Your task to perform on an android device: turn on data saver in the chrome app Image 0: 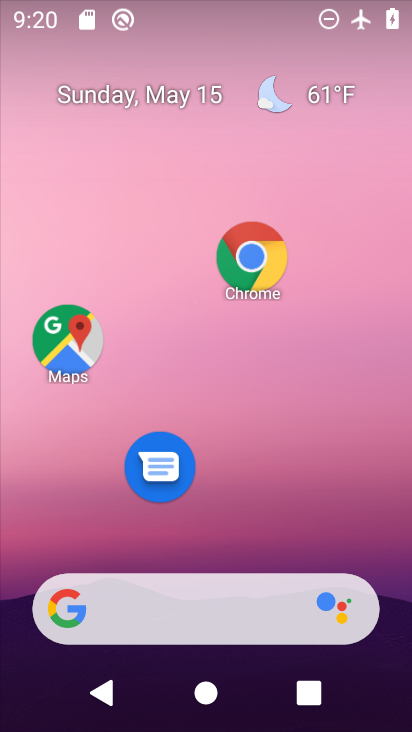
Step 0: click (254, 262)
Your task to perform on an android device: turn on data saver in the chrome app Image 1: 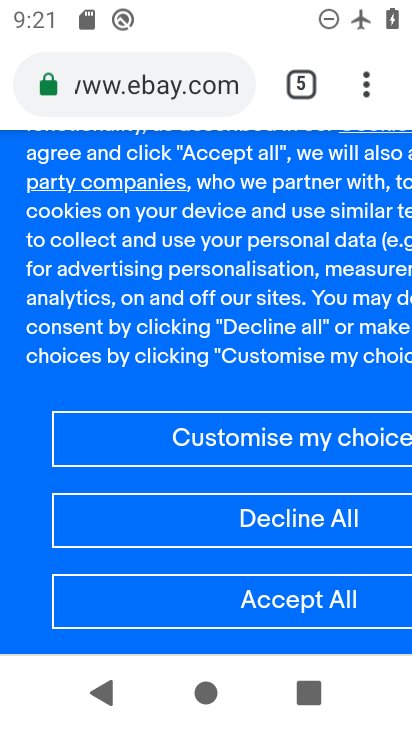
Step 1: click (358, 70)
Your task to perform on an android device: turn on data saver in the chrome app Image 2: 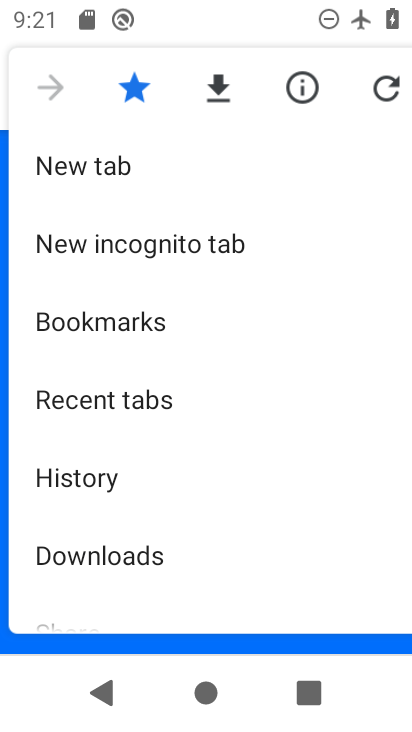
Step 2: drag from (84, 551) to (170, 104)
Your task to perform on an android device: turn on data saver in the chrome app Image 3: 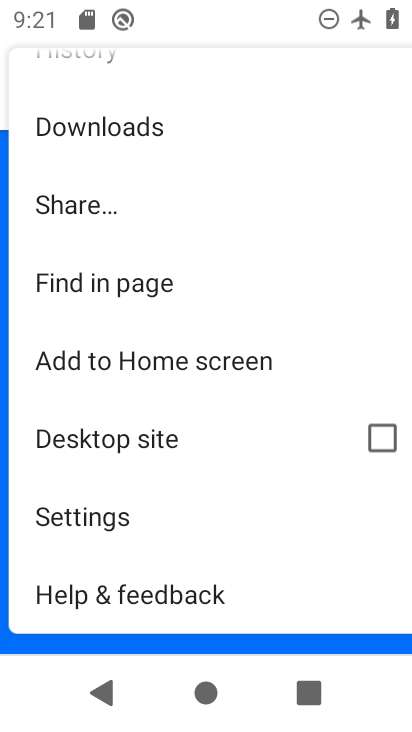
Step 3: drag from (118, 584) to (212, 213)
Your task to perform on an android device: turn on data saver in the chrome app Image 4: 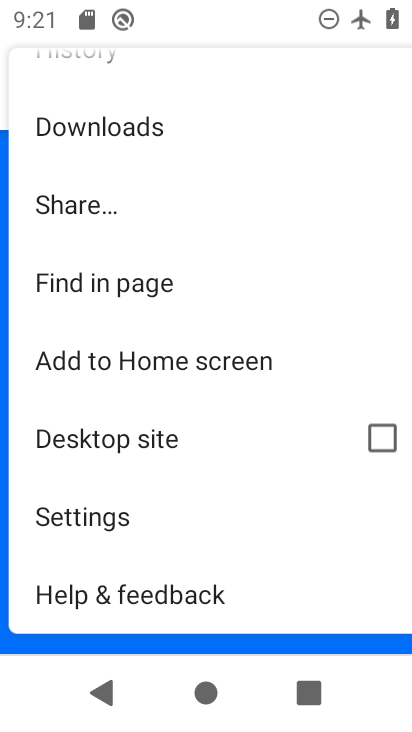
Step 4: click (161, 525)
Your task to perform on an android device: turn on data saver in the chrome app Image 5: 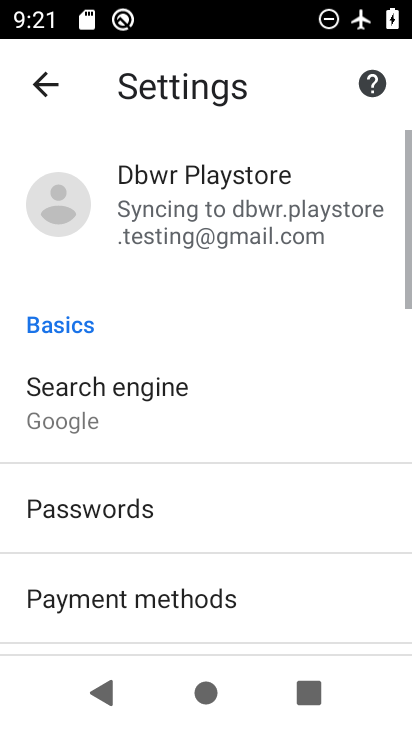
Step 5: drag from (161, 525) to (202, 270)
Your task to perform on an android device: turn on data saver in the chrome app Image 6: 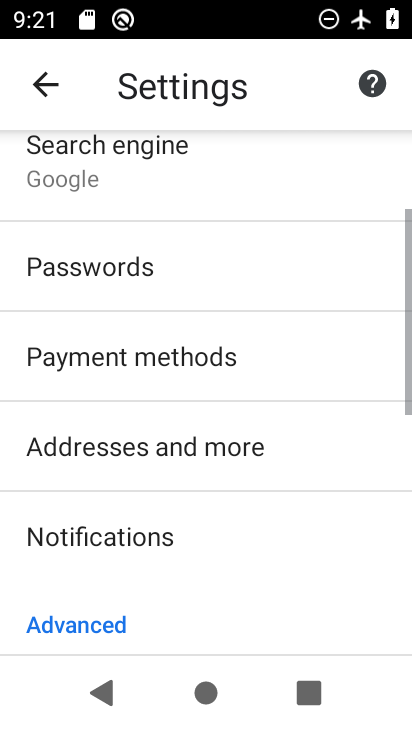
Step 6: drag from (154, 626) to (232, 289)
Your task to perform on an android device: turn on data saver in the chrome app Image 7: 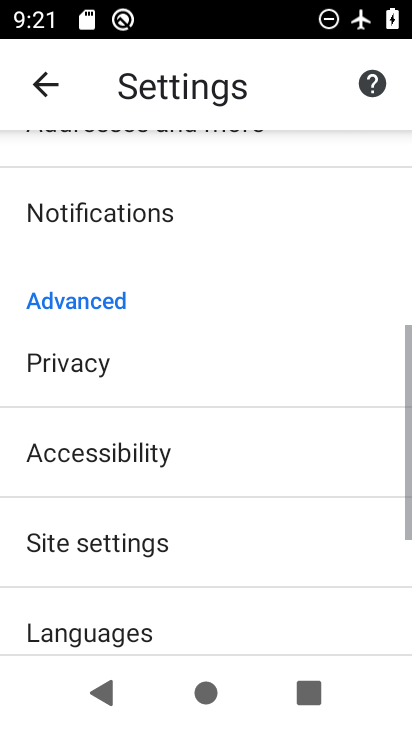
Step 7: drag from (160, 634) to (191, 359)
Your task to perform on an android device: turn on data saver in the chrome app Image 8: 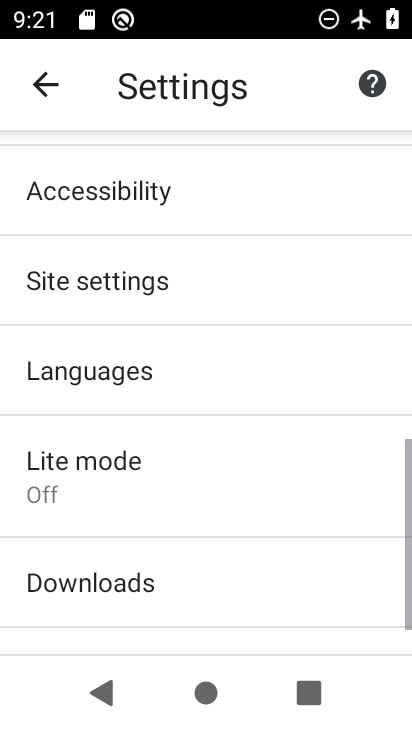
Step 8: click (162, 457)
Your task to perform on an android device: turn on data saver in the chrome app Image 9: 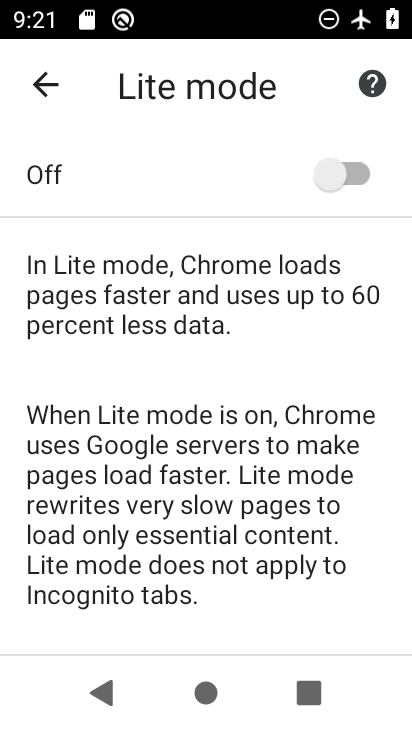
Step 9: click (368, 170)
Your task to perform on an android device: turn on data saver in the chrome app Image 10: 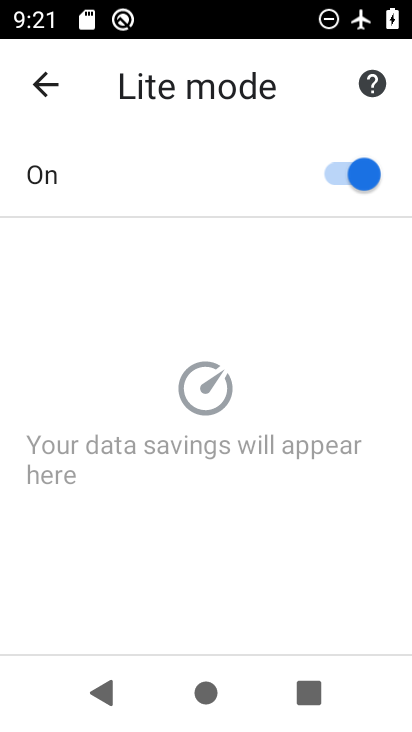
Step 10: task complete